Your task to perform on an android device: Go to calendar. Show me events next week Image 0: 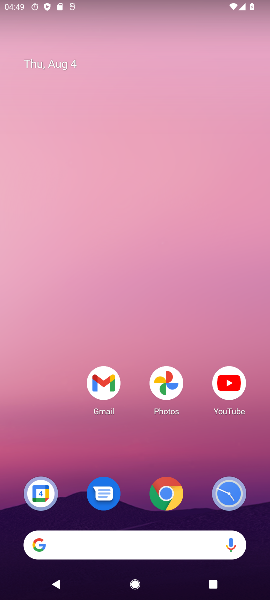
Step 0: drag from (24, 551) to (207, 128)
Your task to perform on an android device: Go to calendar. Show me events next week Image 1: 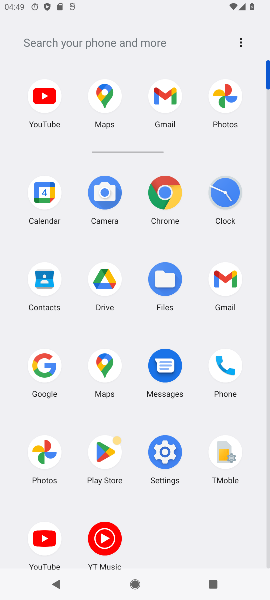
Step 1: click (45, 200)
Your task to perform on an android device: Go to calendar. Show me events next week Image 2: 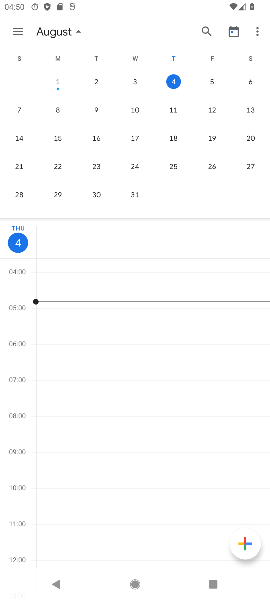
Step 2: task complete